Your task to perform on an android device: visit the assistant section in the google photos Image 0: 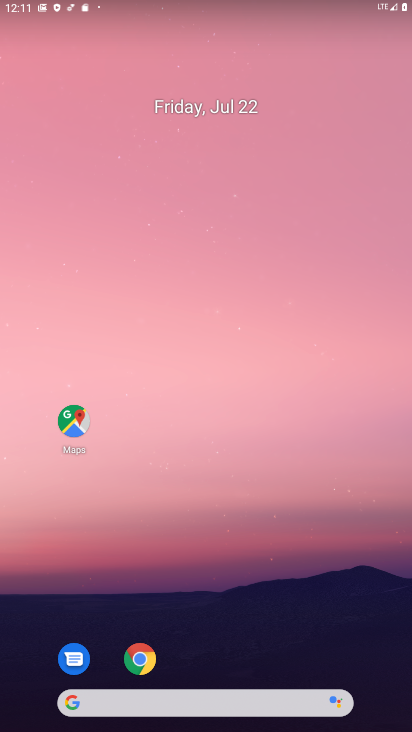
Step 0: drag from (205, 655) to (166, 139)
Your task to perform on an android device: visit the assistant section in the google photos Image 1: 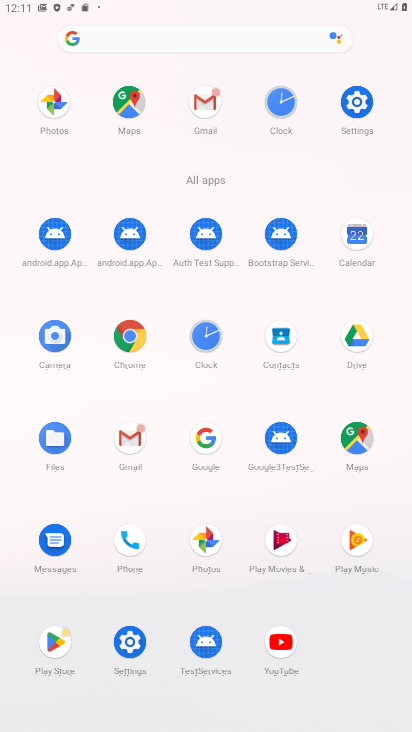
Step 1: click (216, 541)
Your task to perform on an android device: visit the assistant section in the google photos Image 2: 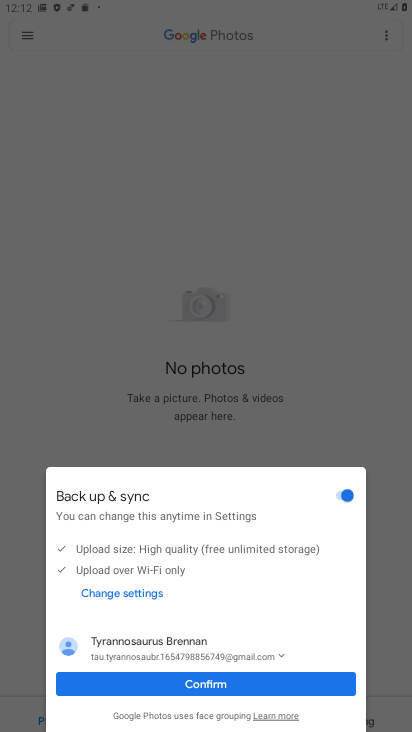
Step 2: click (253, 691)
Your task to perform on an android device: visit the assistant section in the google photos Image 3: 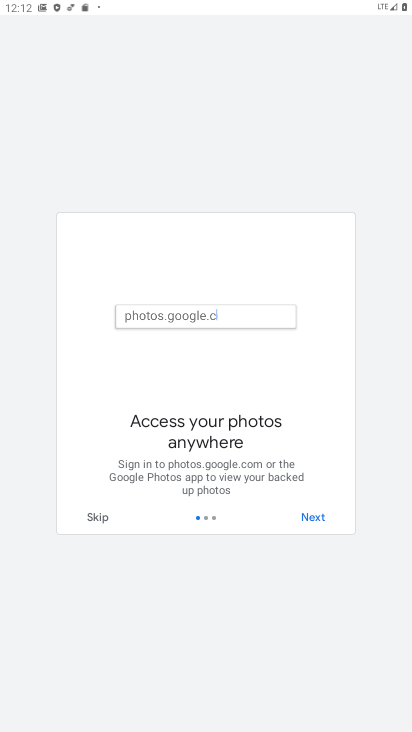
Step 3: click (302, 522)
Your task to perform on an android device: visit the assistant section in the google photos Image 4: 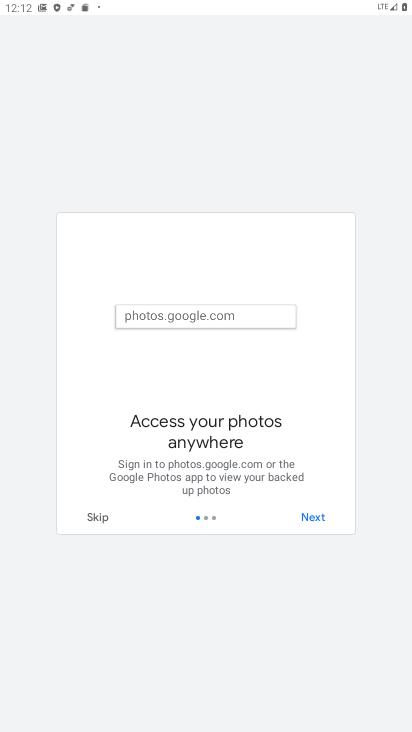
Step 4: click (302, 522)
Your task to perform on an android device: visit the assistant section in the google photos Image 5: 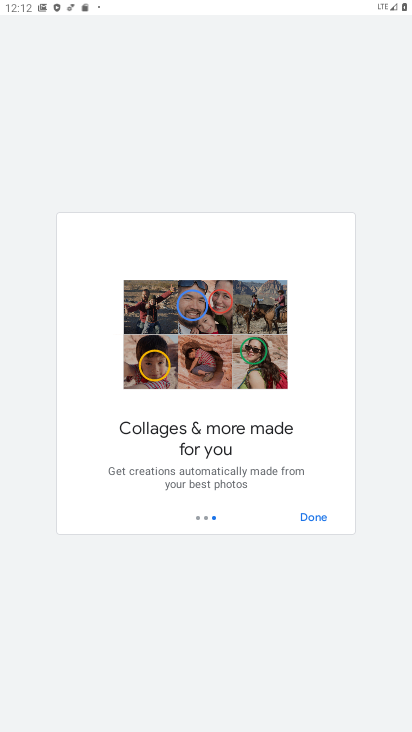
Step 5: click (302, 522)
Your task to perform on an android device: visit the assistant section in the google photos Image 6: 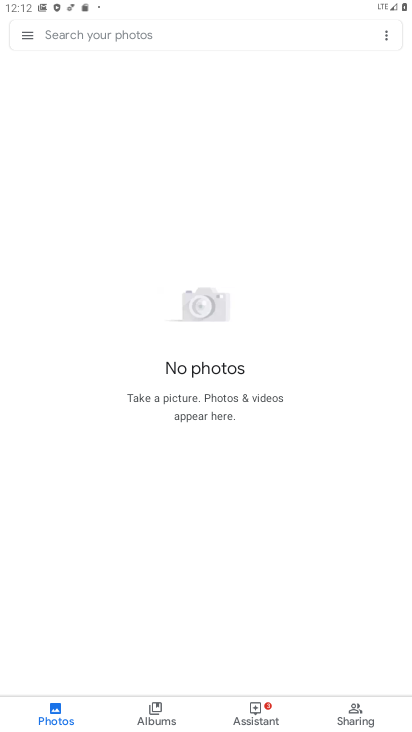
Step 6: click (256, 704)
Your task to perform on an android device: visit the assistant section in the google photos Image 7: 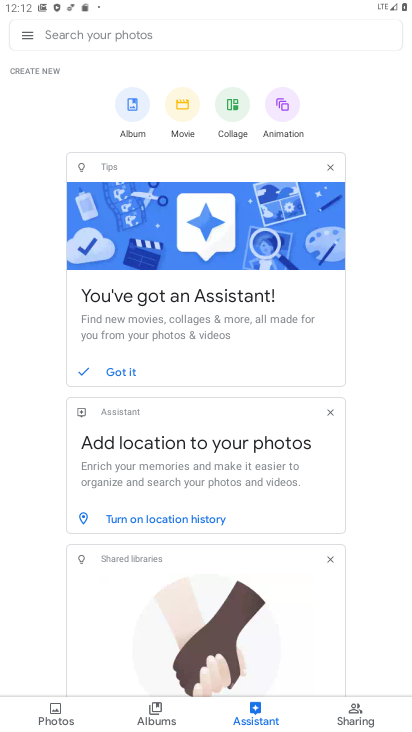
Step 7: task complete